Your task to perform on an android device: Open the calendar app, open the side menu, and click the "Day" option Image 0: 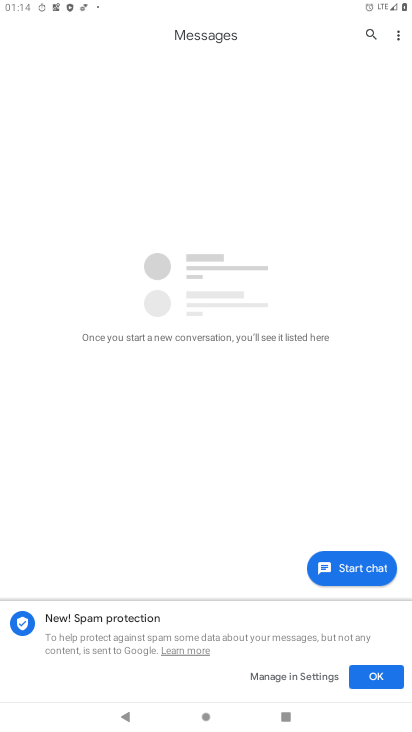
Step 0: press home button
Your task to perform on an android device: Open the calendar app, open the side menu, and click the "Day" option Image 1: 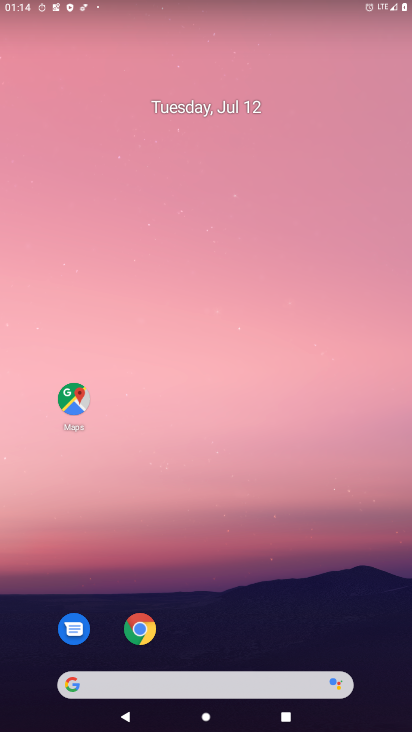
Step 1: drag from (38, 680) to (400, 98)
Your task to perform on an android device: Open the calendar app, open the side menu, and click the "Day" option Image 2: 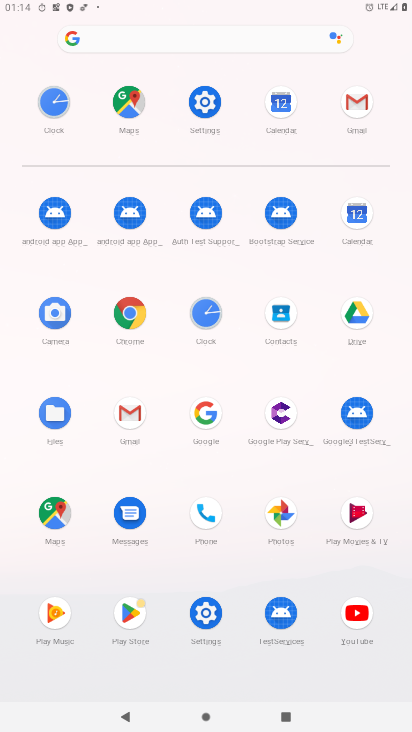
Step 2: click (359, 217)
Your task to perform on an android device: Open the calendar app, open the side menu, and click the "Day" option Image 3: 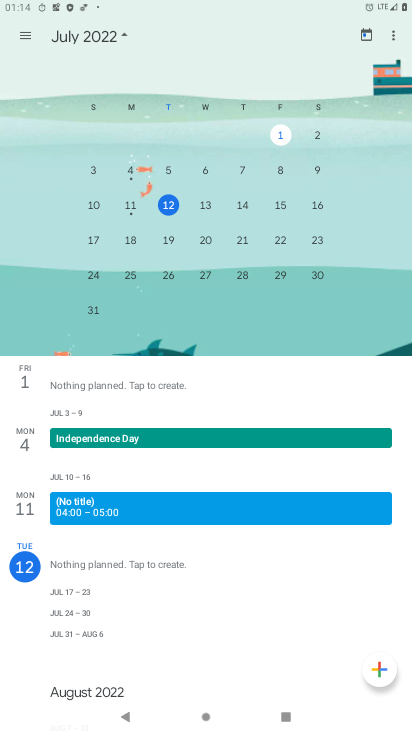
Step 3: click (23, 24)
Your task to perform on an android device: Open the calendar app, open the side menu, and click the "Day" option Image 4: 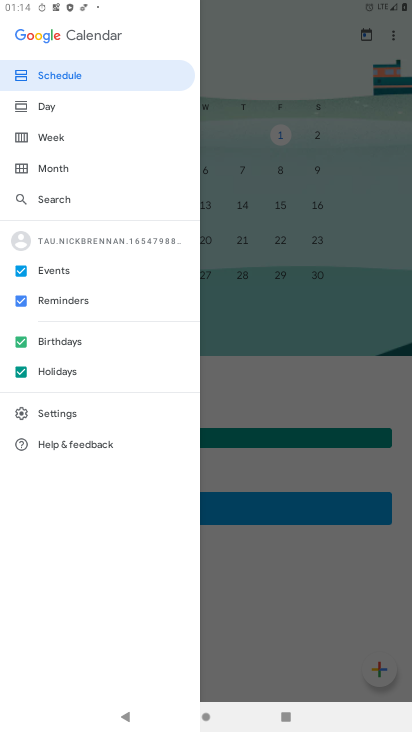
Step 4: click (59, 105)
Your task to perform on an android device: Open the calendar app, open the side menu, and click the "Day" option Image 5: 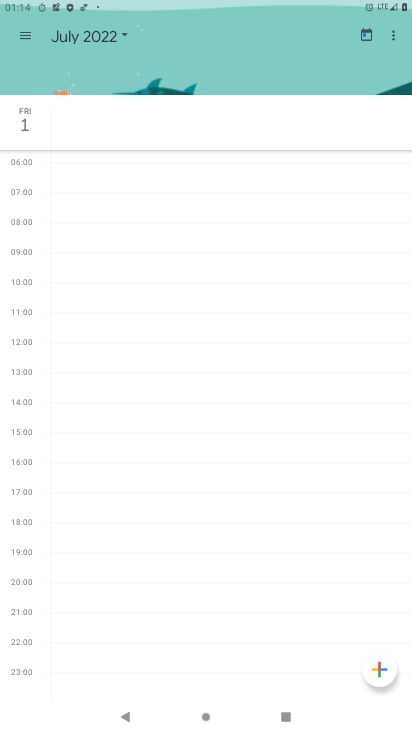
Step 5: task complete